Your task to perform on an android device: Go to Maps Image 0: 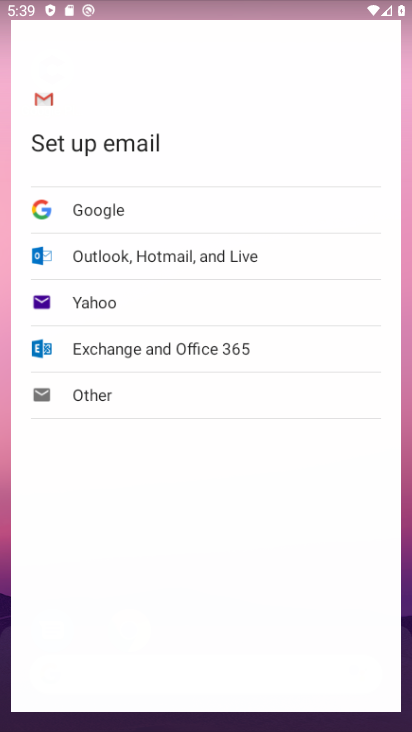
Step 0: click (121, 632)
Your task to perform on an android device: Go to Maps Image 1: 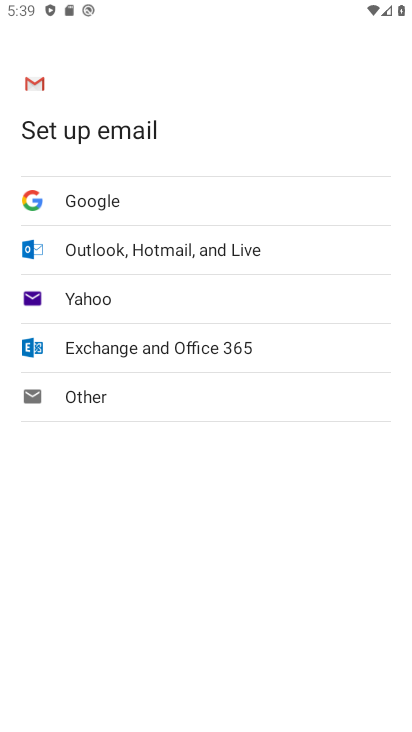
Step 1: press home button
Your task to perform on an android device: Go to Maps Image 2: 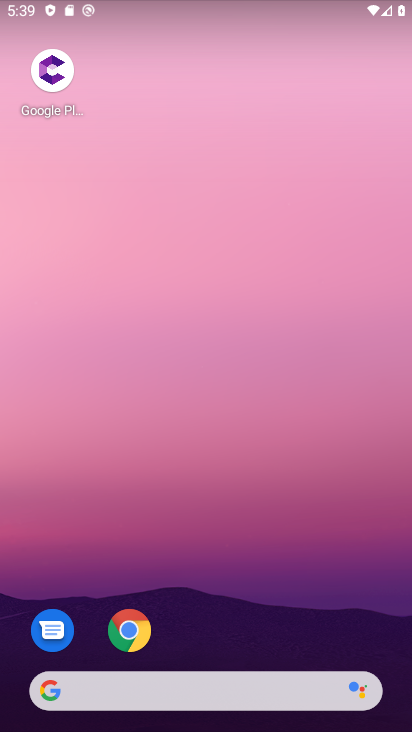
Step 2: click (214, 642)
Your task to perform on an android device: Go to Maps Image 3: 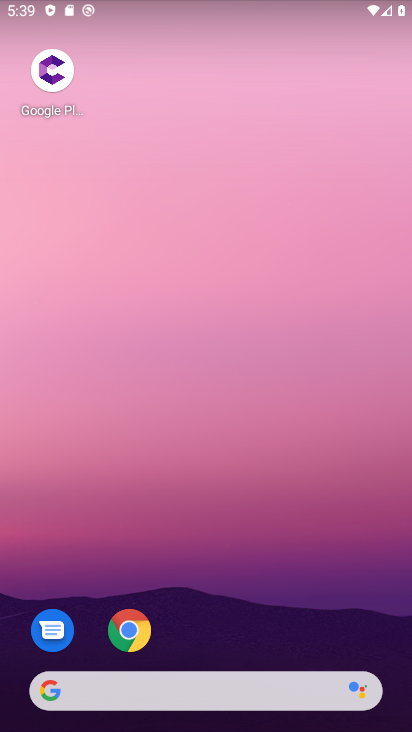
Step 3: drag from (185, 423) to (151, 134)
Your task to perform on an android device: Go to Maps Image 4: 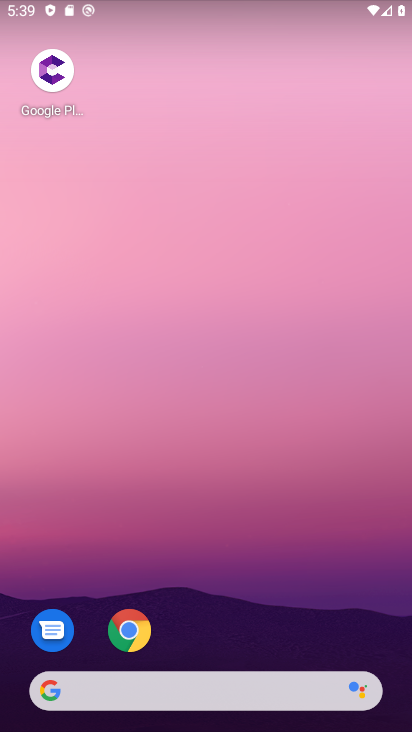
Step 4: drag from (186, 484) to (189, 181)
Your task to perform on an android device: Go to Maps Image 5: 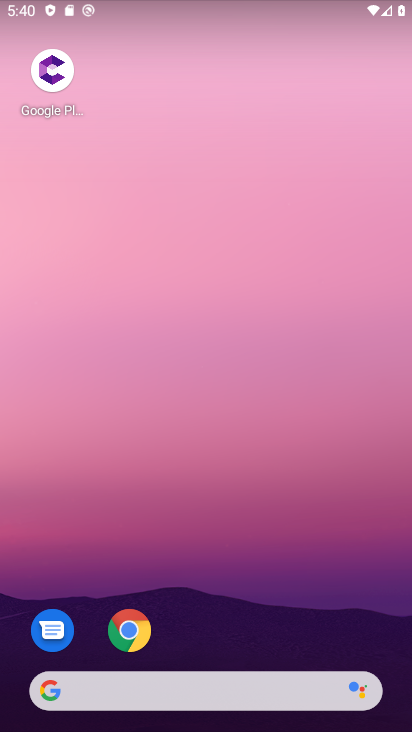
Step 5: drag from (197, 616) to (182, 222)
Your task to perform on an android device: Go to Maps Image 6: 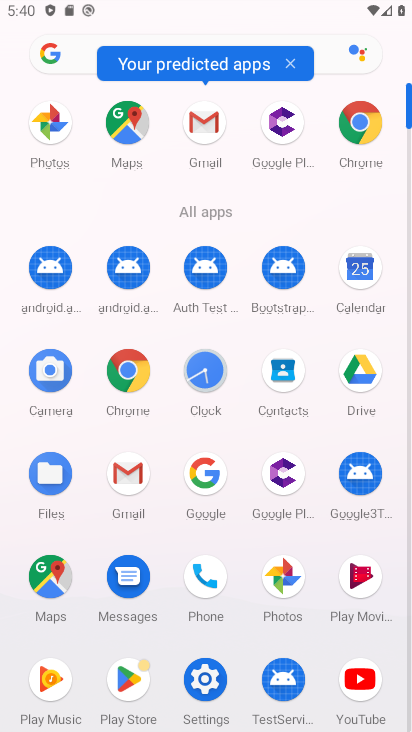
Step 6: click (142, 155)
Your task to perform on an android device: Go to Maps Image 7: 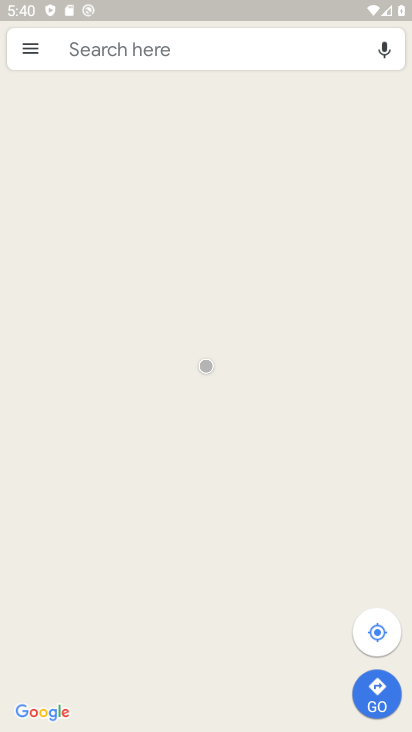
Step 7: task complete